Your task to perform on an android device: Open my contact list Image 0: 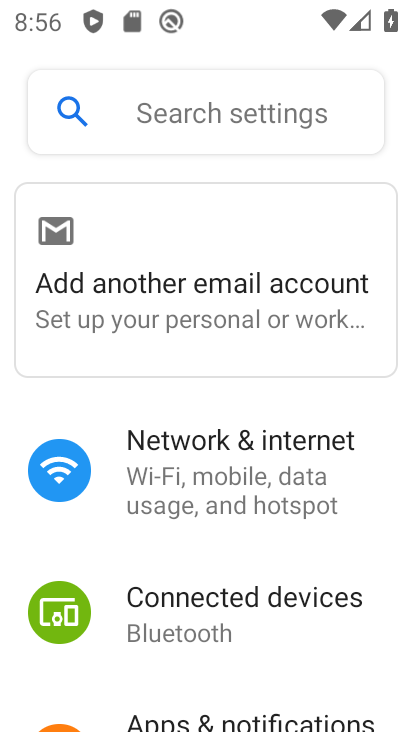
Step 0: press home button
Your task to perform on an android device: Open my contact list Image 1: 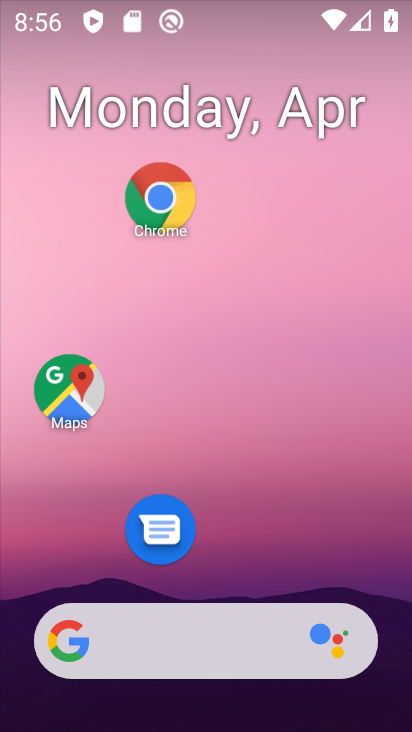
Step 1: drag from (259, 490) to (378, 0)
Your task to perform on an android device: Open my contact list Image 2: 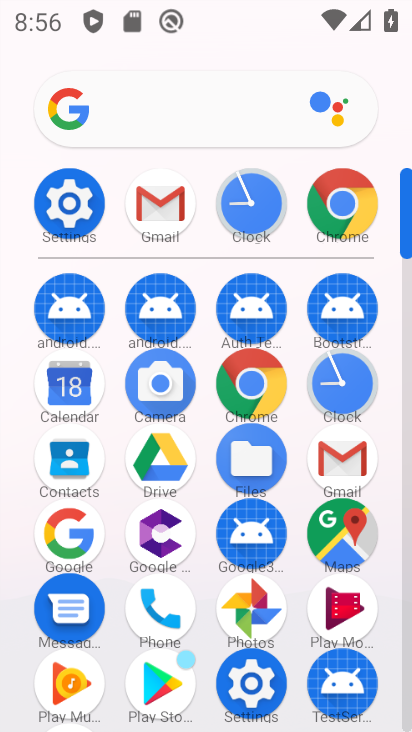
Step 2: drag from (74, 534) to (201, 72)
Your task to perform on an android device: Open my contact list Image 3: 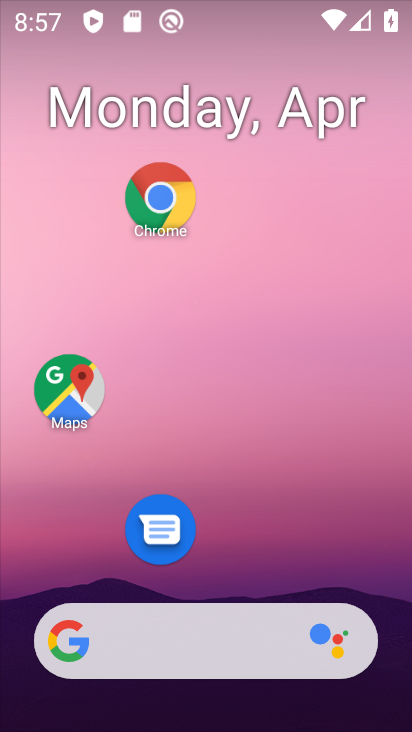
Step 3: drag from (257, 484) to (349, 16)
Your task to perform on an android device: Open my contact list Image 4: 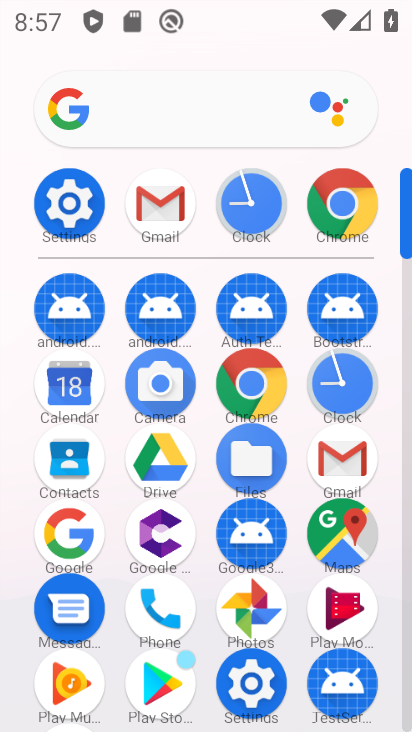
Step 4: click (66, 457)
Your task to perform on an android device: Open my contact list Image 5: 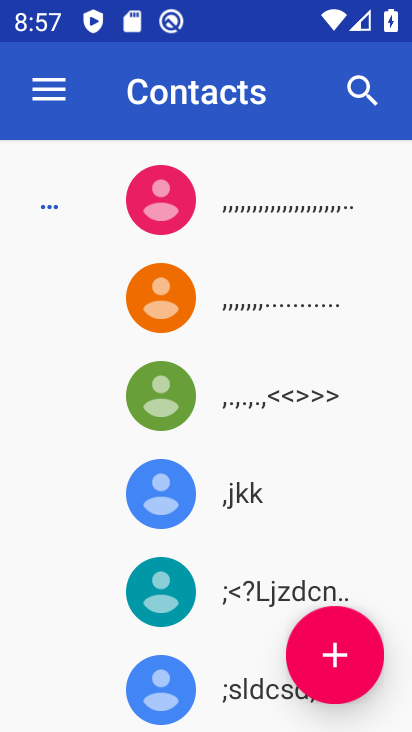
Step 5: task complete